Your task to perform on an android device: See recent photos Image 0: 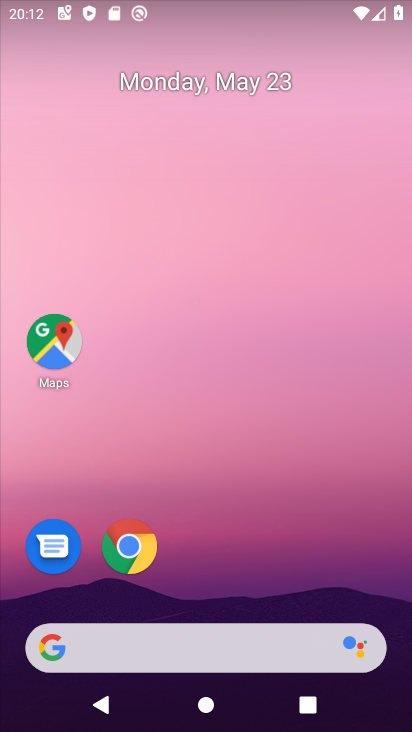
Step 0: drag from (389, 582) to (372, 153)
Your task to perform on an android device: See recent photos Image 1: 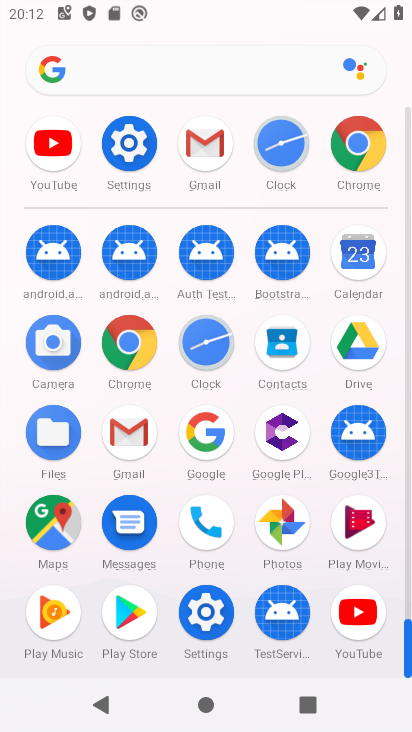
Step 1: click (285, 538)
Your task to perform on an android device: See recent photos Image 2: 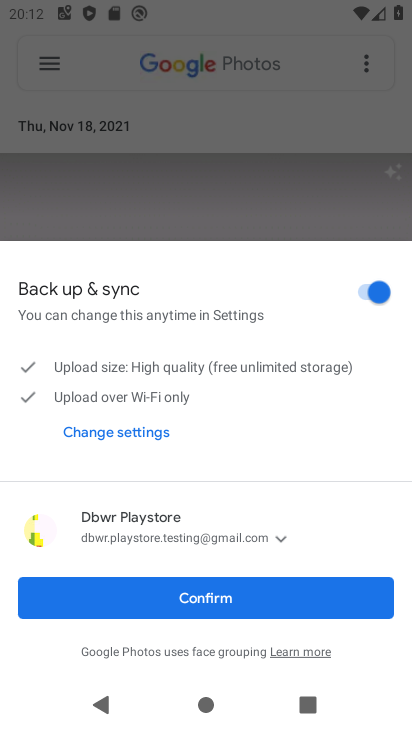
Step 2: click (279, 606)
Your task to perform on an android device: See recent photos Image 3: 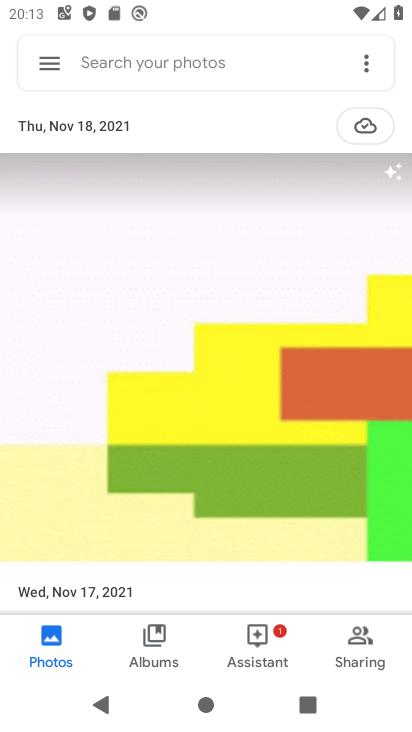
Step 3: task complete